Your task to perform on an android device: Open maps Image 0: 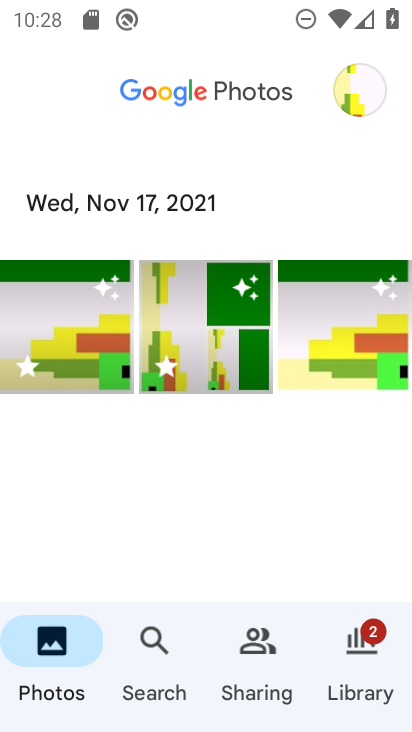
Step 0: press home button
Your task to perform on an android device: Open maps Image 1: 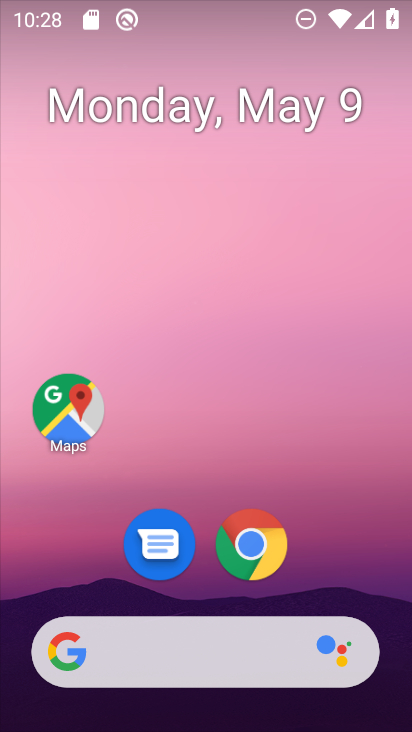
Step 1: click (73, 408)
Your task to perform on an android device: Open maps Image 2: 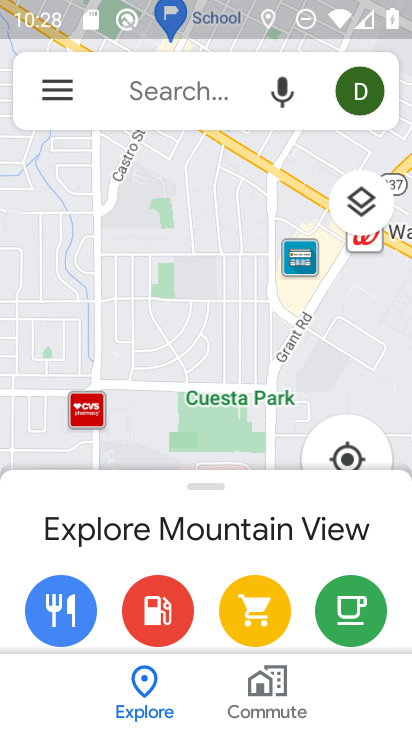
Step 2: task complete